Your task to perform on an android device: Open my contact list Image 0: 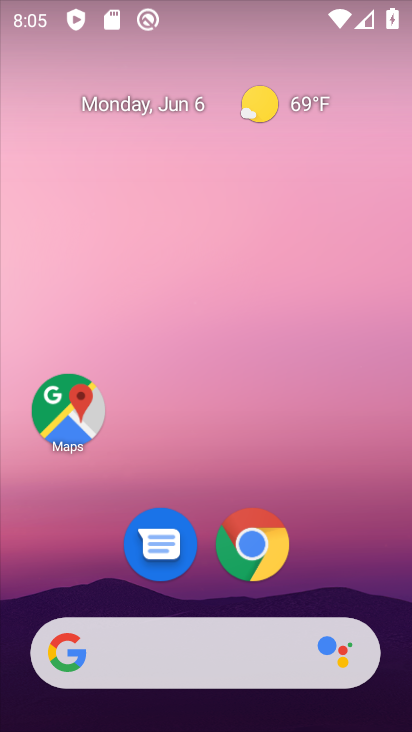
Step 0: drag from (208, 567) to (245, 210)
Your task to perform on an android device: Open my contact list Image 1: 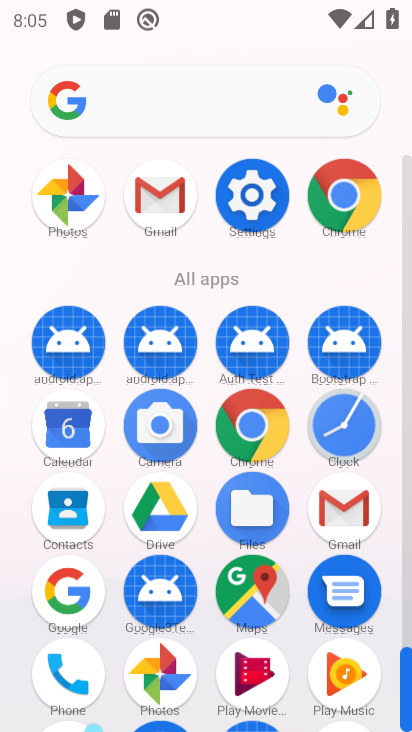
Step 1: click (68, 509)
Your task to perform on an android device: Open my contact list Image 2: 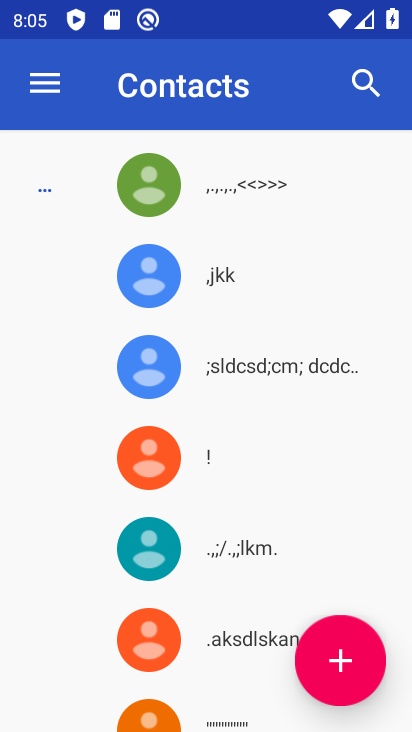
Step 2: task complete